Your task to perform on an android device: change keyboard looks Image 0: 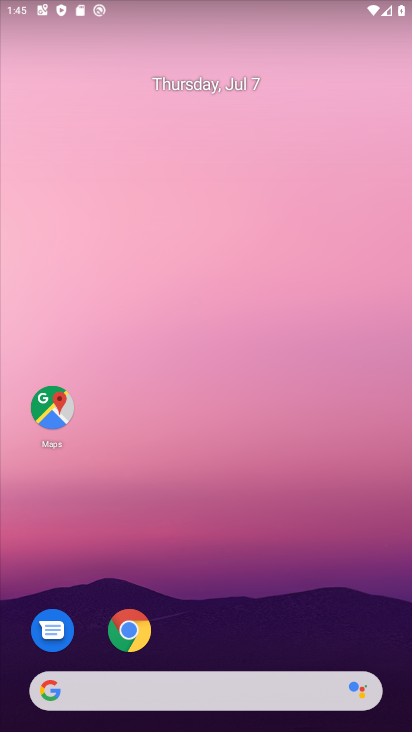
Step 0: drag from (231, 659) to (136, 1)
Your task to perform on an android device: change keyboard looks Image 1: 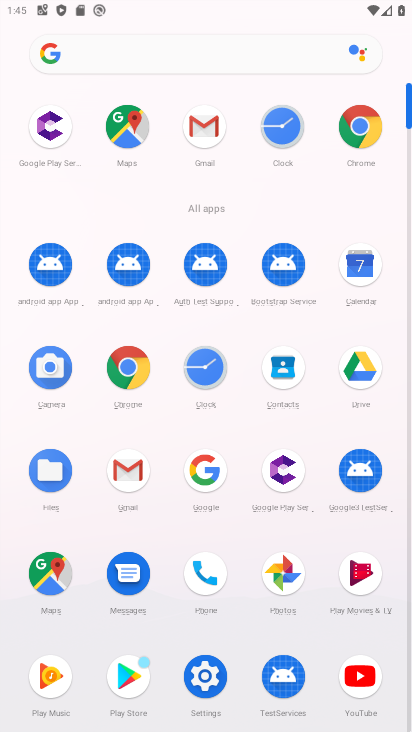
Step 1: click (182, 681)
Your task to perform on an android device: change keyboard looks Image 2: 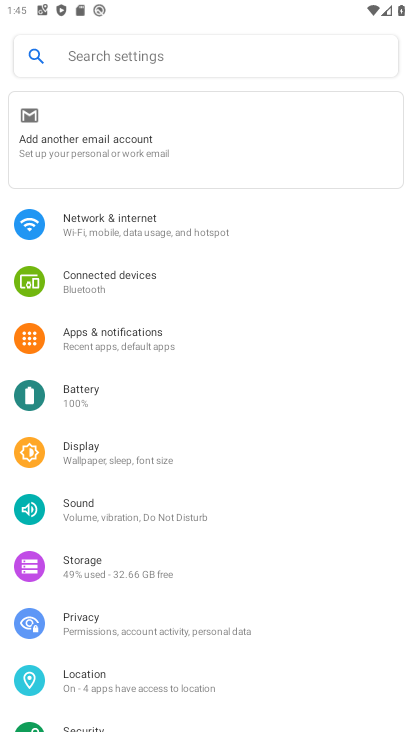
Step 2: click (75, 463)
Your task to perform on an android device: change keyboard looks Image 3: 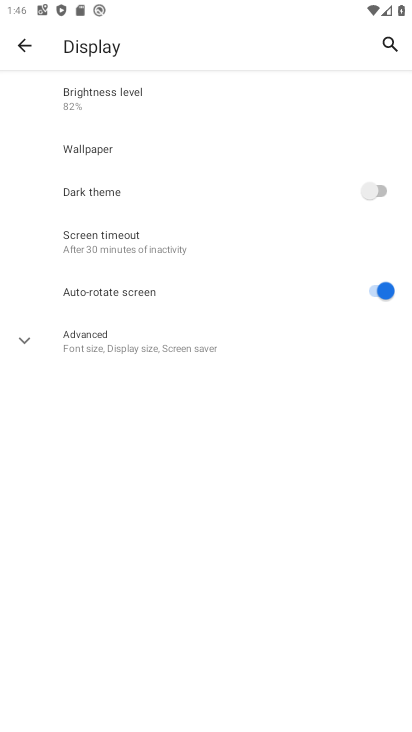
Step 3: click (30, 37)
Your task to perform on an android device: change keyboard looks Image 4: 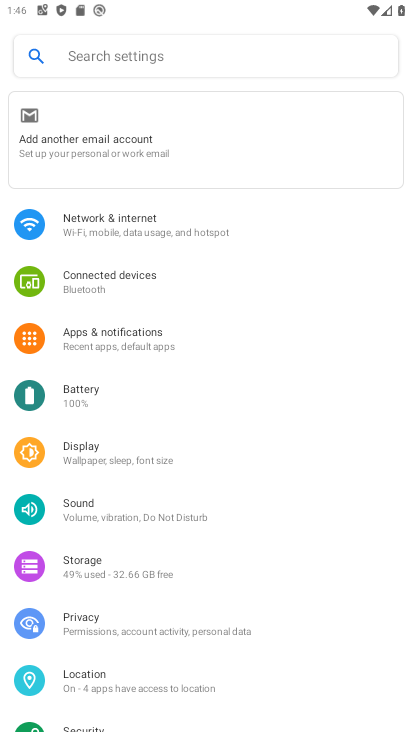
Step 4: drag from (186, 525) to (158, 83)
Your task to perform on an android device: change keyboard looks Image 5: 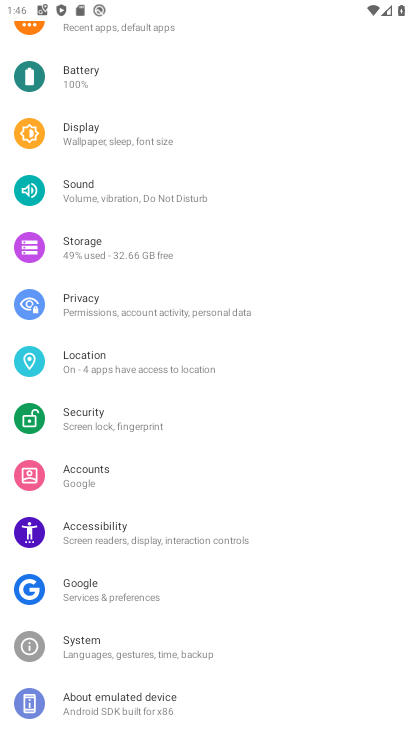
Step 5: click (115, 643)
Your task to perform on an android device: change keyboard looks Image 6: 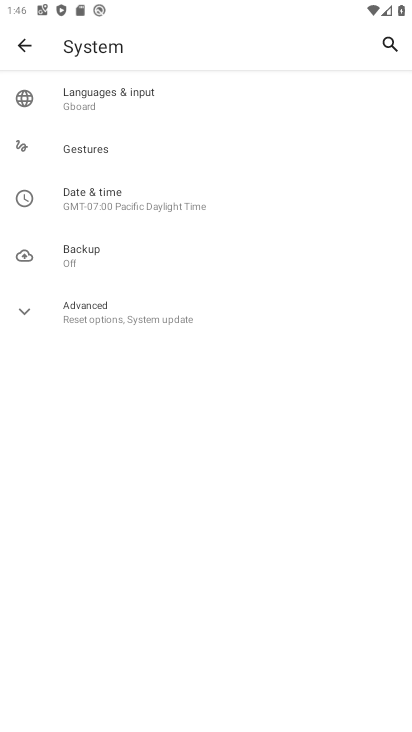
Step 6: click (95, 99)
Your task to perform on an android device: change keyboard looks Image 7: 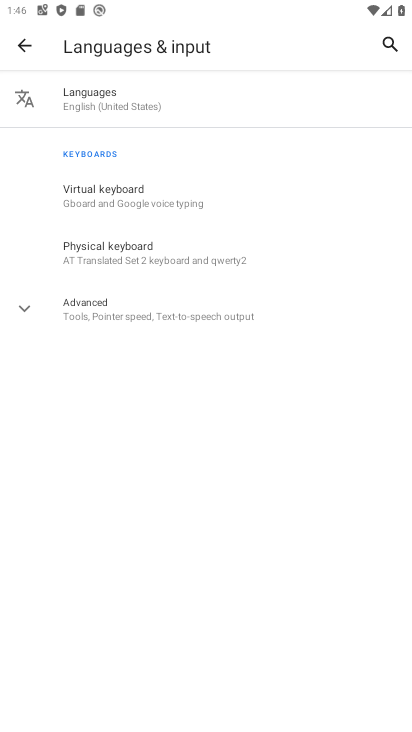
Step 7: click (138, 190)
Your task to perform on an android device: change keyboard looks Image 8: 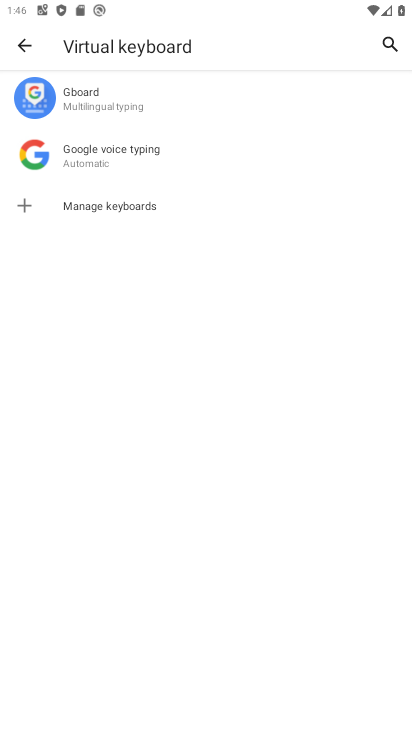
Step 8: click (97, 100)
Your task to perform on an android device: change keyboard looks Image 9: 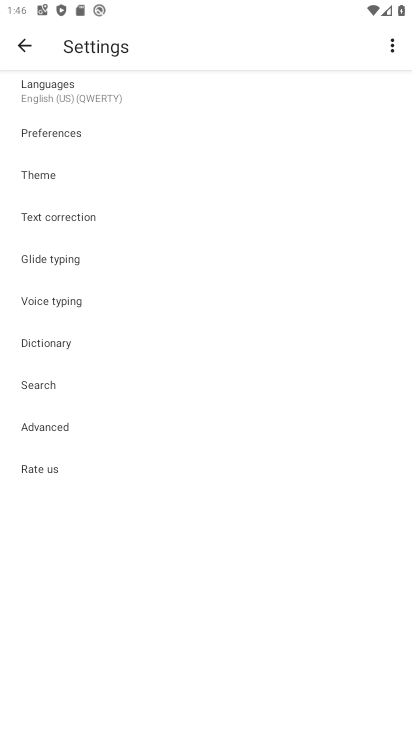
Step 9: click (69, 180)
Your task to perform on an android device: change keyboard looks Image 10: 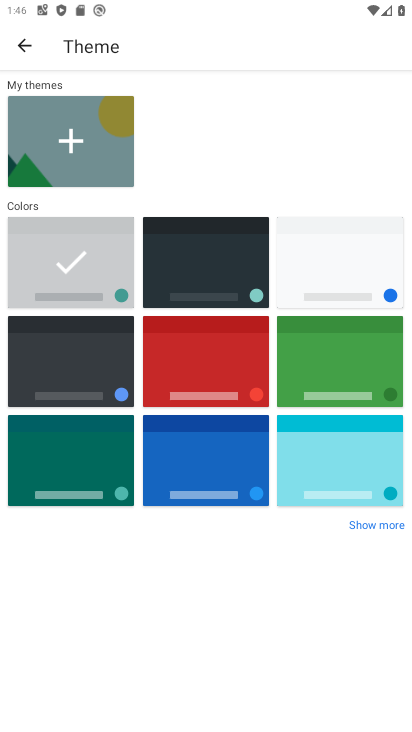
Step 10: click (168, 273)
Your task to perform on an android device: change keyboard looks Image 11: 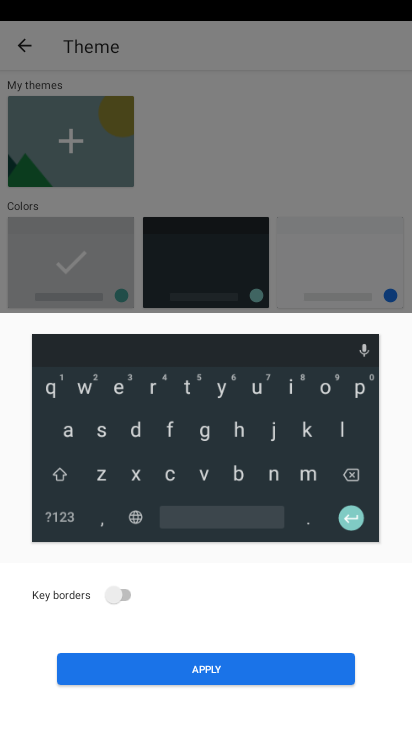
Step 11: click (229, 660)
Your task to perform on an android device: change keyboard looks Image 12: 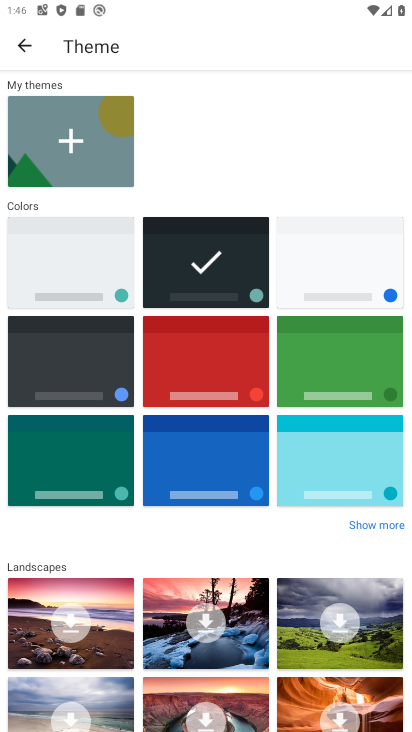
Step 12: task complete